Your task to perform on an android device: turn on sleep mode Image 0: 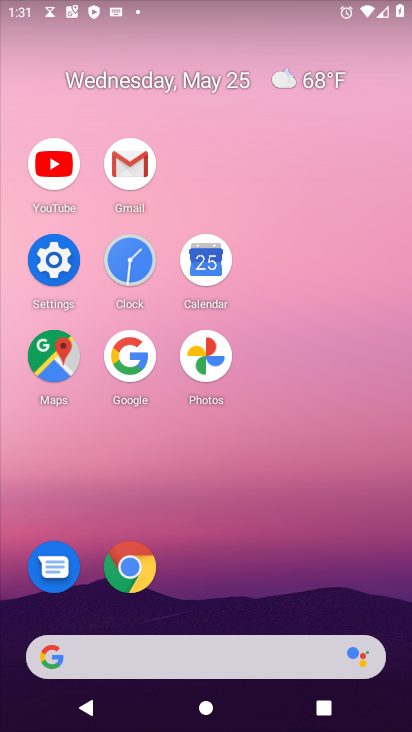
Step 0: click (62, 257)
Your task to perform on an android device: turn on sleep mode Image 1: 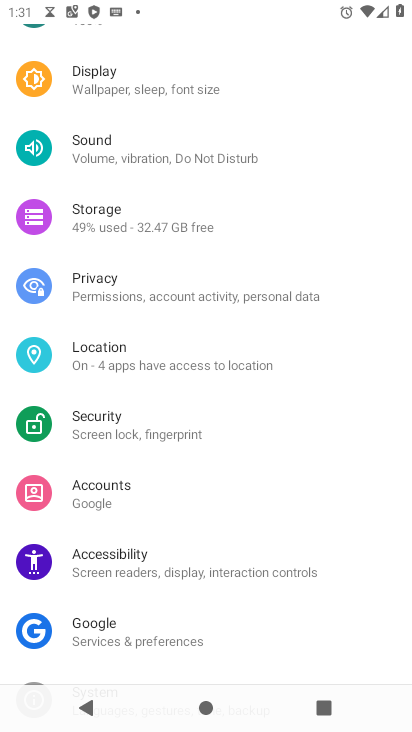
Step 1: click (196, 93)
Your task to perform on an android device: turn on sleep mode Image 2: 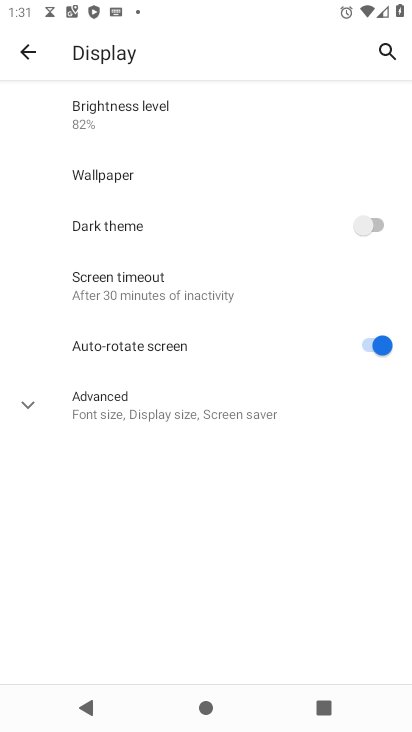
Step 2: click (187, 279)
Your task to perform on an android device: turn on sleep mode Image 3: 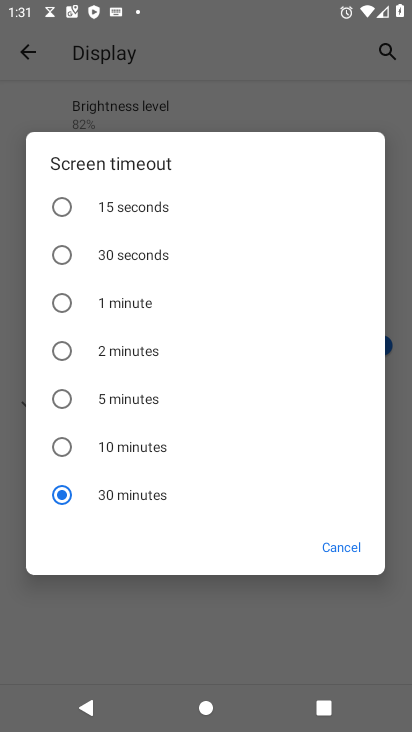
Step 3: task complete